Your task to perform on an android device: manage bookmarks in the chrome app Image 0: 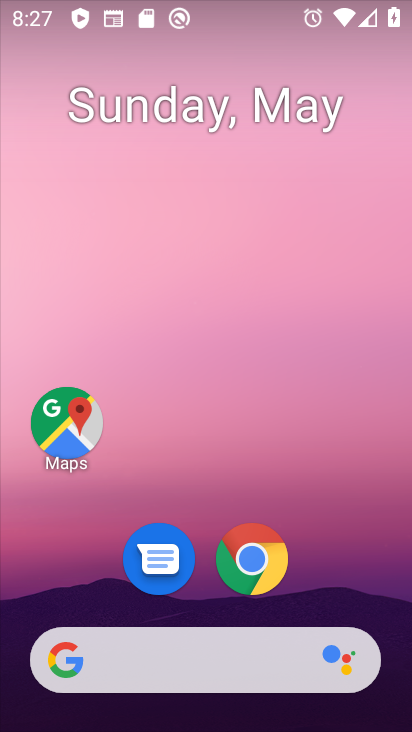
Step 0: press home button
Your task to perform on an android device: manage bookmarks in the chrome app Image 1: 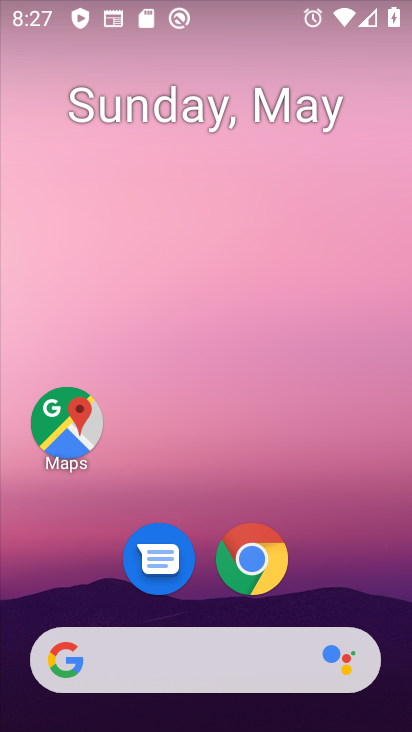
Step 1: click (252, 557)
Your task to perform on an android device: manage bookmarks in the chrome app Image 2: 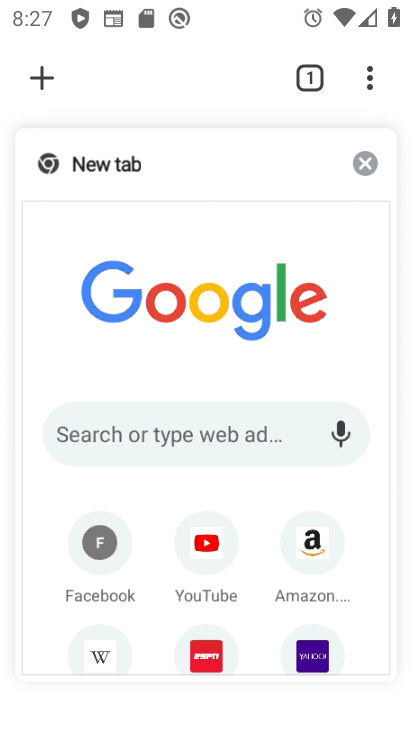
Step 2: click (275, 296)
Your task to perform on an android device: manage bookmarks in the chrome app Image 3: 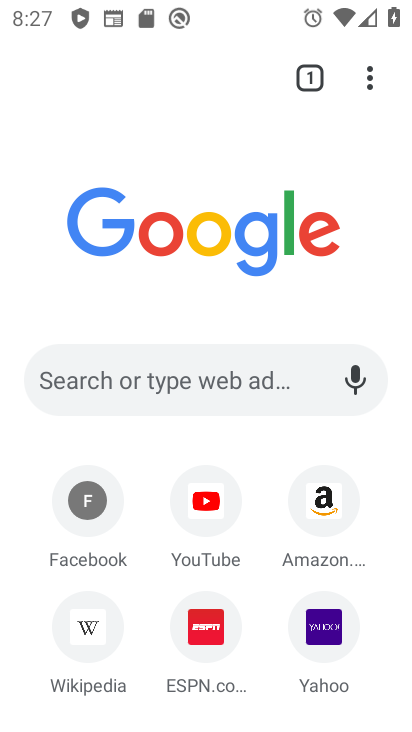
Step 3: click (367, 80)
Your task to perform on an android device: manage bookmarks in the chrome app Image 4: 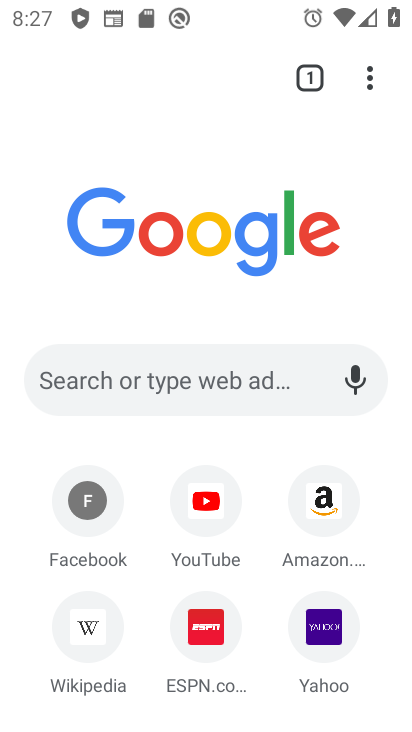
Step 4: click (369, 81)
Your task to perform on an android device: manage bookmarks in the chrome app Image 5: 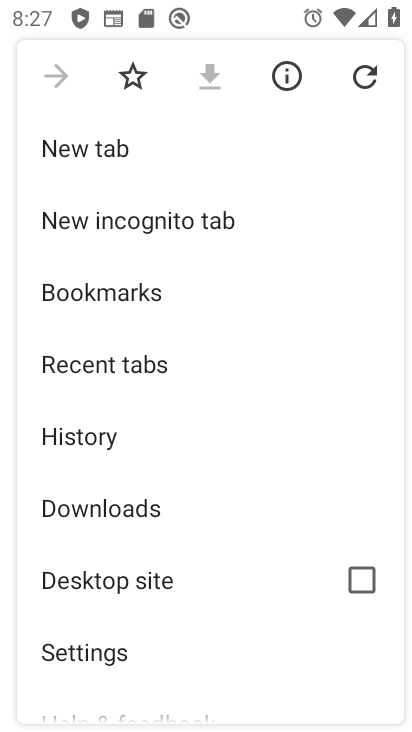
Step 5: click (136, 292)
Your task to perform on an android device: manage bookmarks in the chrome app Image 6: 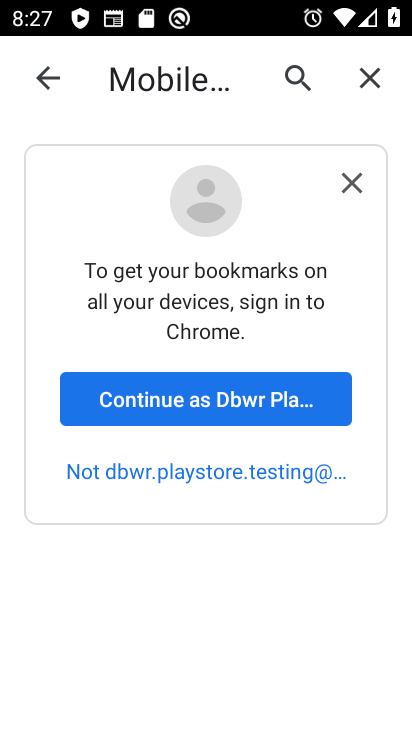
Step 6: click (351, 184)
Your task to perform on an android device: manage bookmarks in the chrome app Image 7: 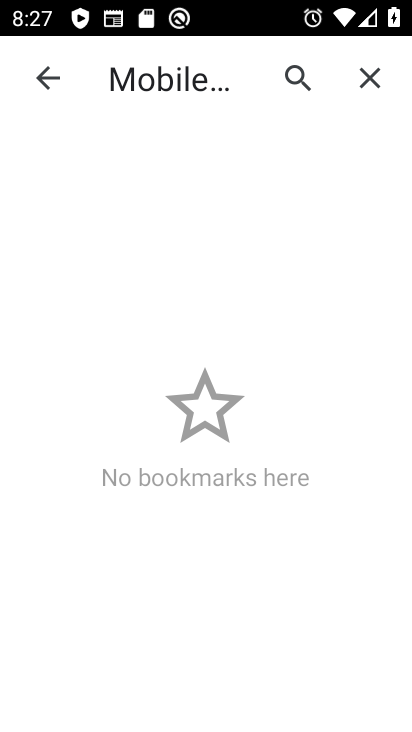
Step 7: task complete